Your task to perform on an android device: Clear the shopping cart on amazon. Search for asus rog on amazon, select the first entry, and add it to the cart. Image 0: 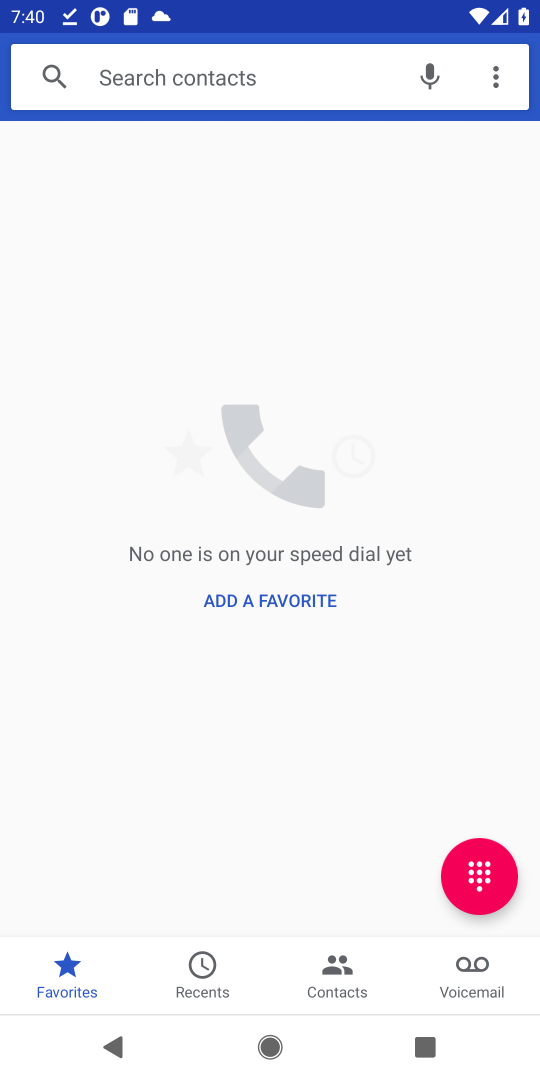
Step 0: press home button
Your task to perform on an android device: Clear the shopping cart on amazon. Search for asus rog on amazon, select the first entry, and add it to the cart. Image 1: 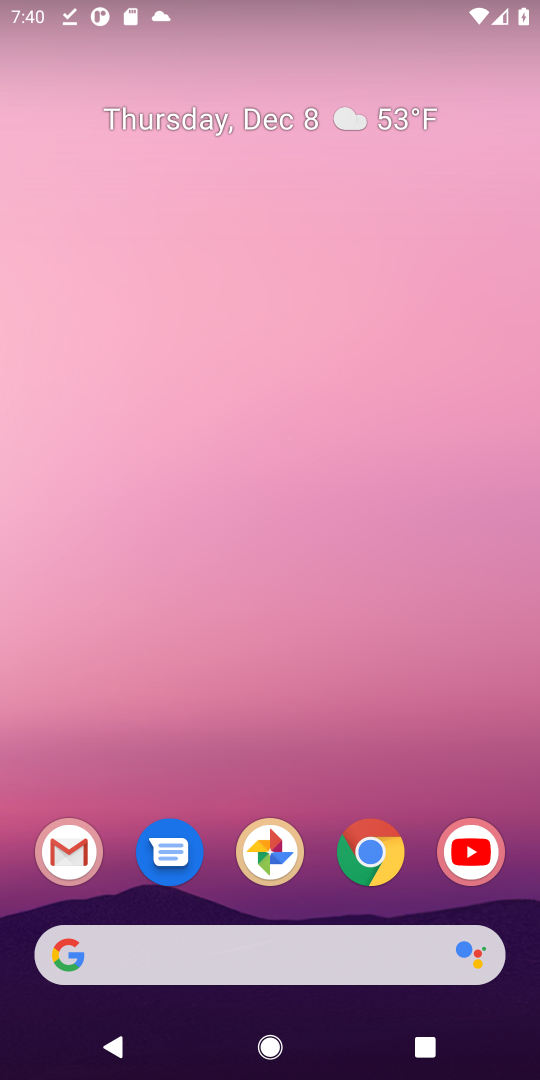
Step 1: click (273, 968)
Your task to perform on an android device: Clear the shopping cart on amazon. Search for asus rog on amazon, select the first entry, and add it to the cart. Image 2: 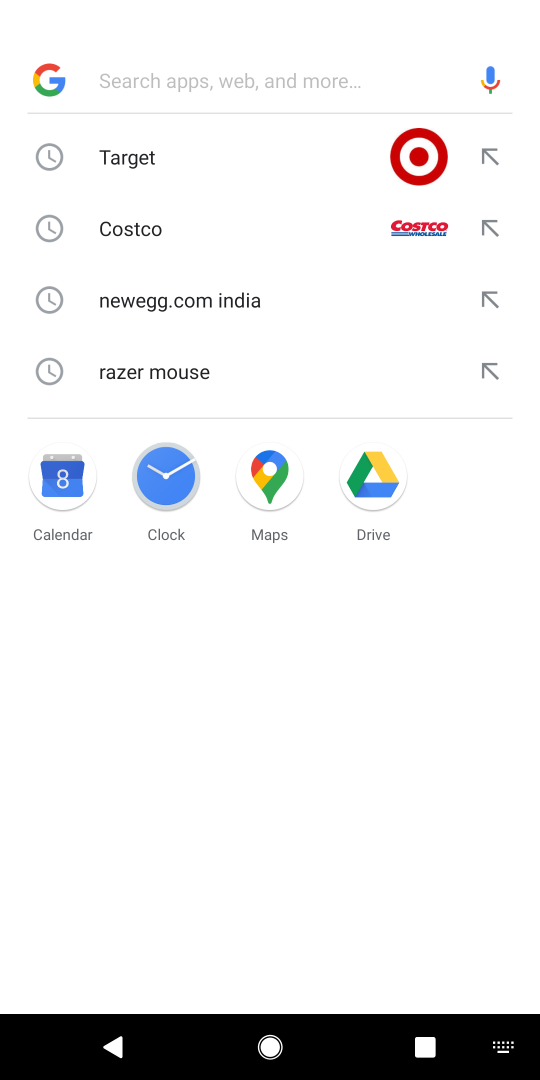
Step 2: type "amazon"
Your task to perform on an android device: Clear the shopping cart on amazon. Search for asus rog on amazon, select the first entry, and add it to the cart. Image 3: 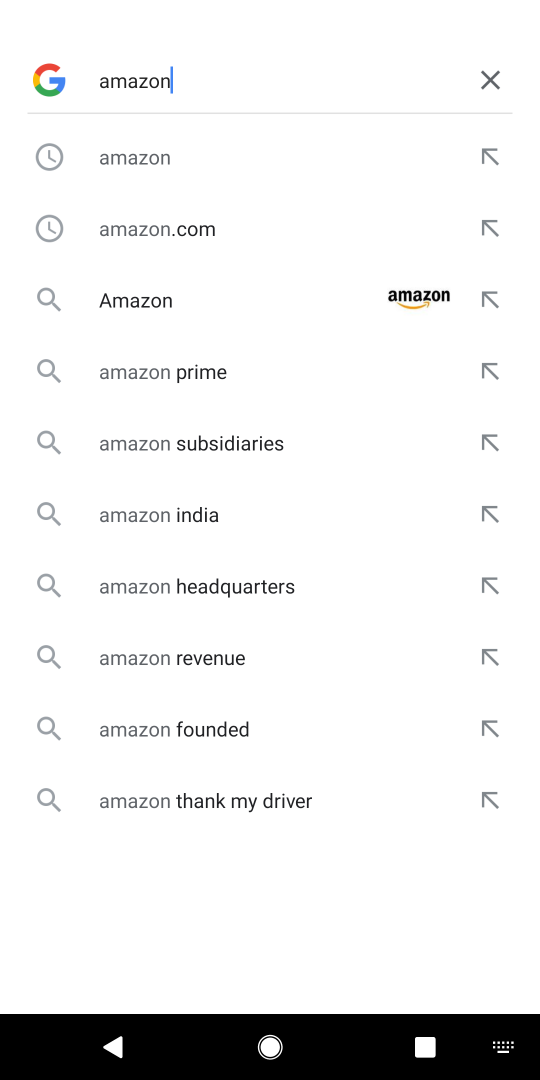
Step 3: click (244, 293)
Your task to perform on an android device: Clear the shopping cart on amazon. Search for asus rog on amazon, select the first entry, and add it to the cart. Image 4: 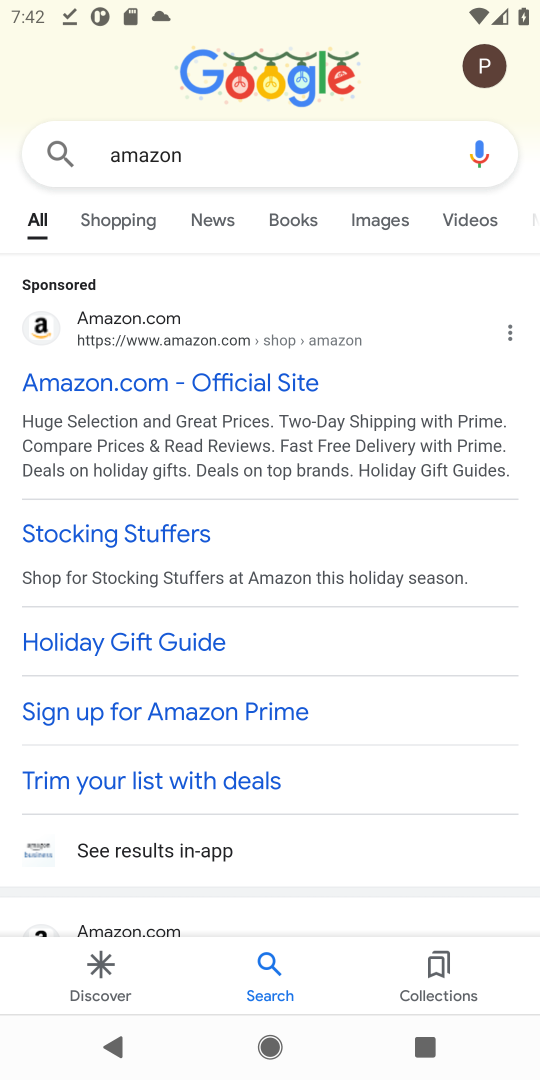
Step 4: click (187, 372)
Your task to perform on an android device: Clear the shopping cart on amazon. Search for asus rog on amazon, select the first entry, and add it to the cart. Image 5: 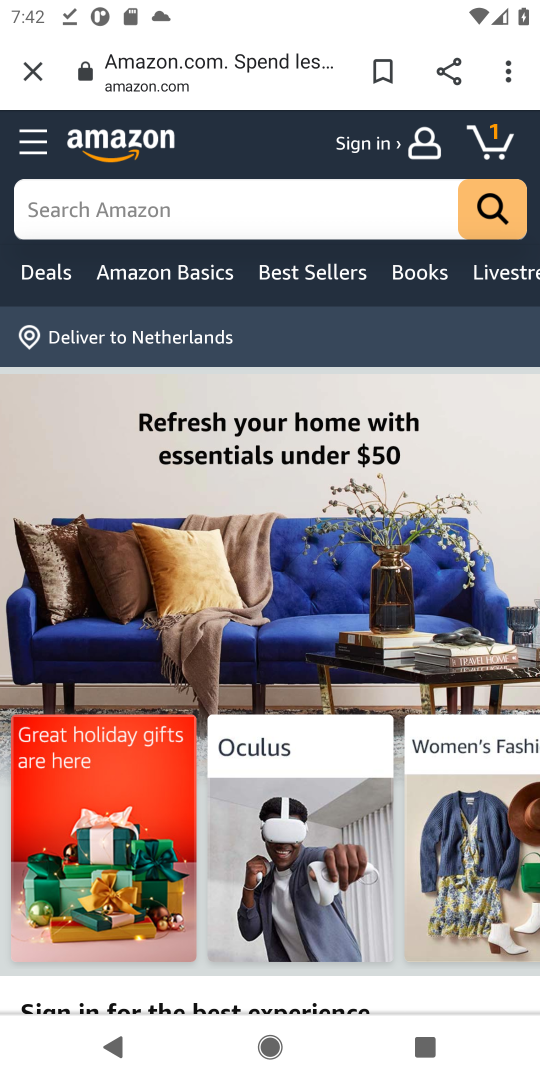
Step 5: click (339, 217)
Your task to perform on an android device: Clear the shopping cart on amazon. Search for asus rog on amazon, select the first entry, and add it to the cart. Image 6: 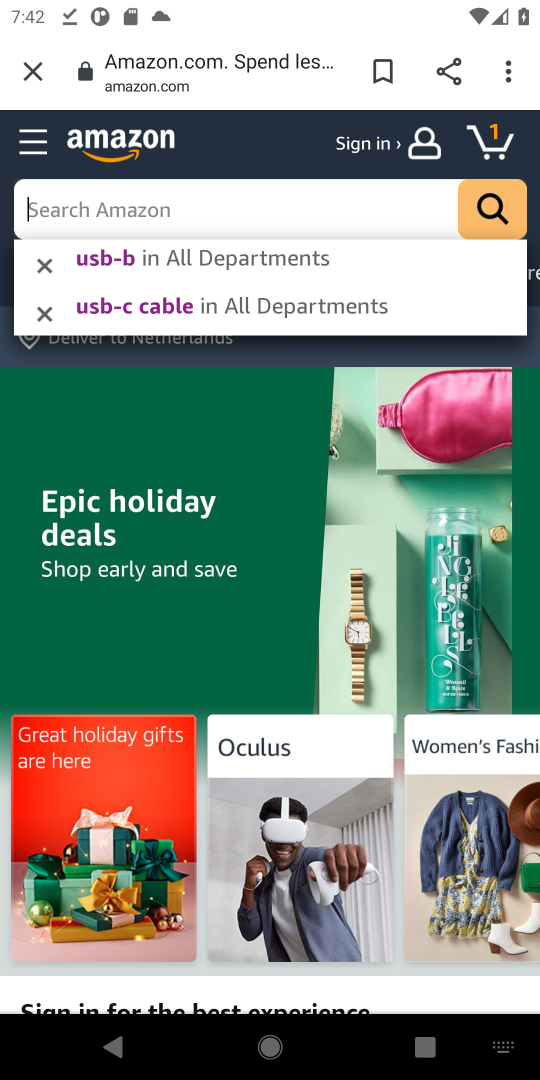
Step 6: type "asus rog "
Your task to perform on an android device: Clear the shopping cart on amazon. Search for asus rog on amazon, select the first entry, and add it to the cart. Image 7: 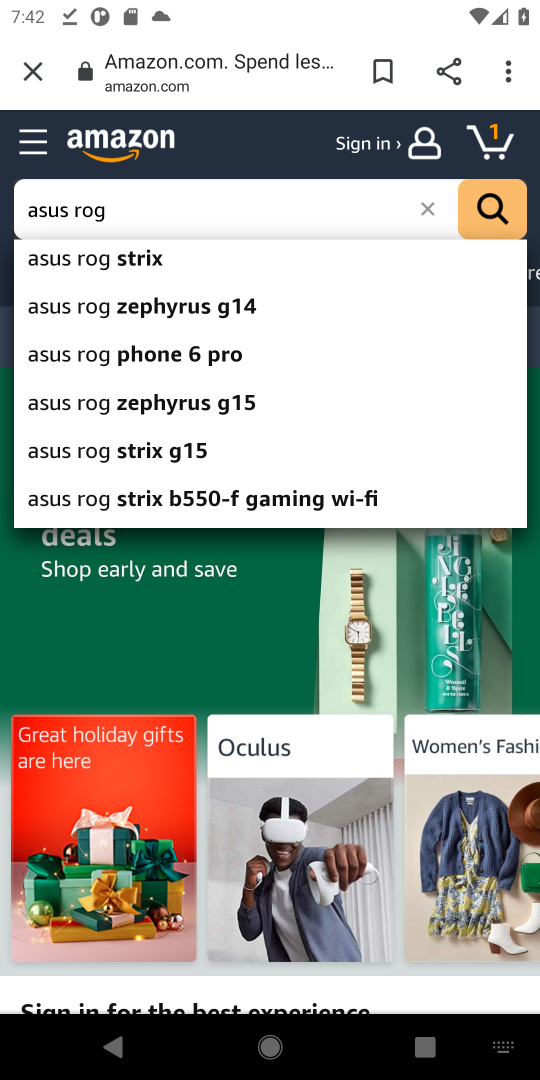
Step 7: click (498, 205)
Your task to perform on an android device: Clear the shopping cart on amazon. Search for asus rog on amazon, select the first entry, and add it to the cart. Image 8: 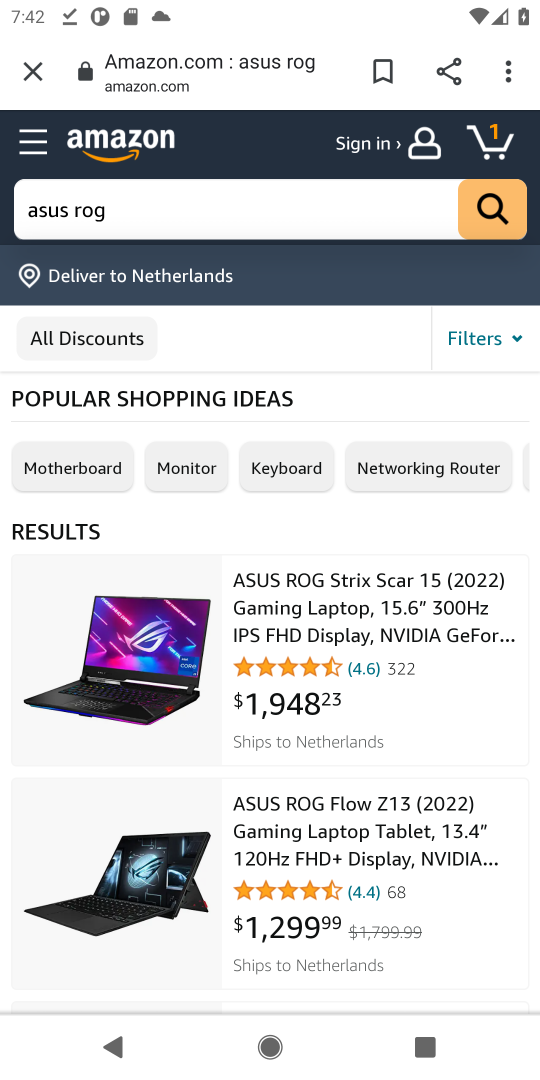
Step 8: click (346, 648)
Your task to perform on an android device: Clear the shopping cart on amazon. Search for asus rog on amazon, select the first entry, and add it to the cart. Image 9: 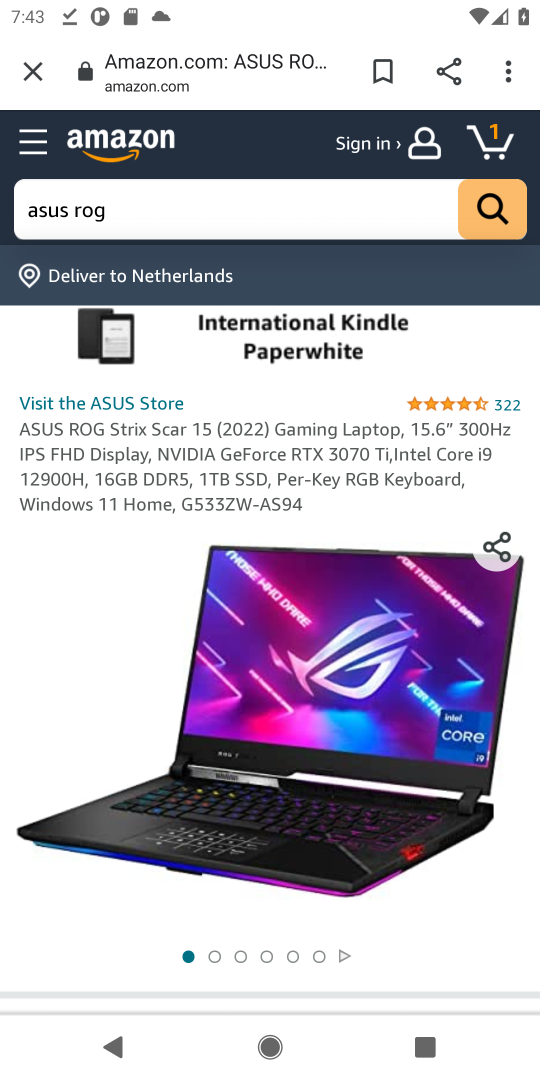
Step 9: drag from (252, 793) to (230, 396)
Your task to perform on an android device: Clear the shopping cart on amazon. Search for asus rog on amazon, select the first entry, and add it to the cart. Image 10: 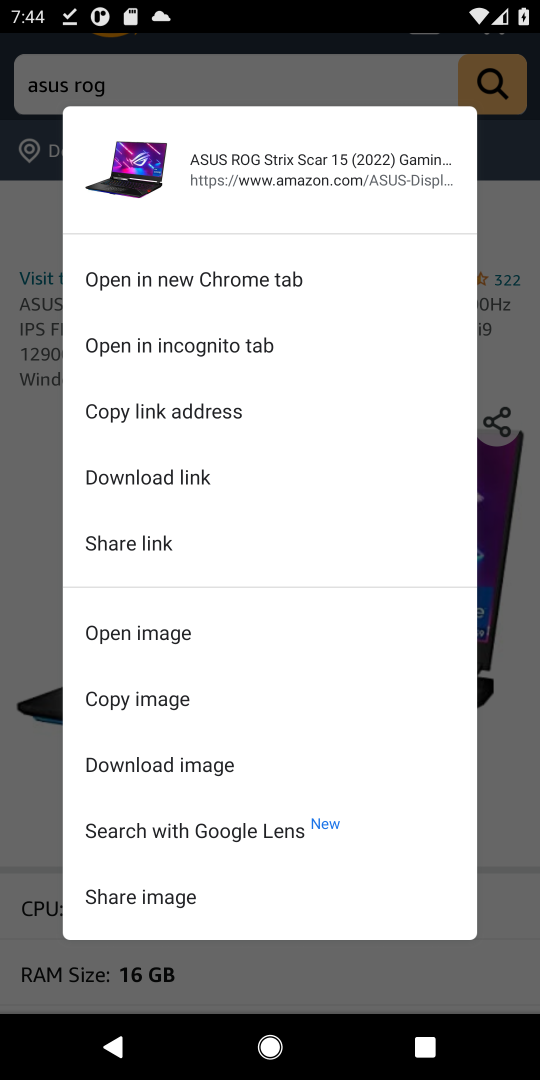
Step 10: click (225, 291)
Your task to perform on an android device: Clear the shopping cart on amazon. Search for asus rog on amazon, select the first entry, and add it to the cart. Image 11: 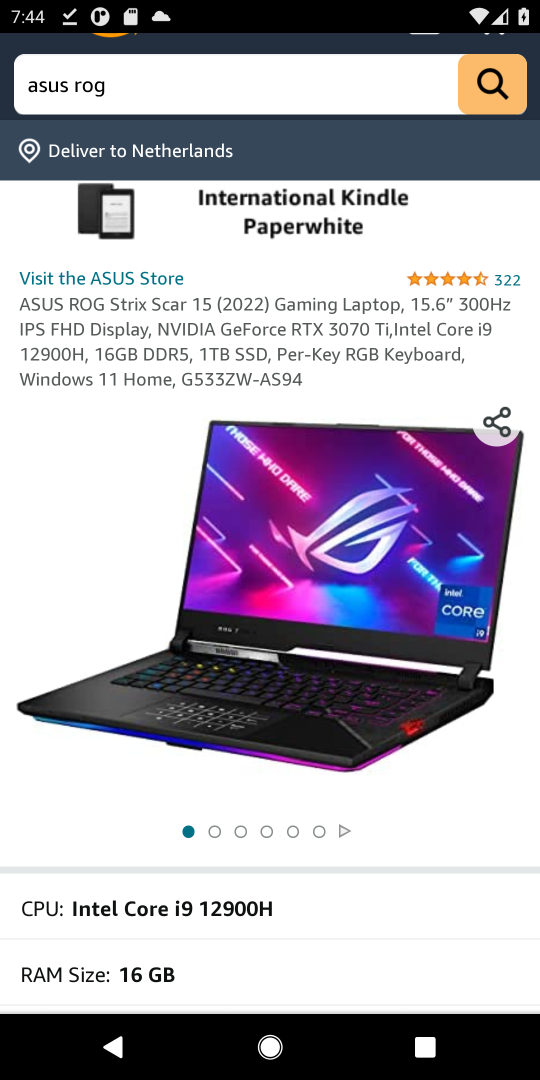
Step 11: task complete